Your task to perform on an android device: delete a single message in the gmail app Image 0: 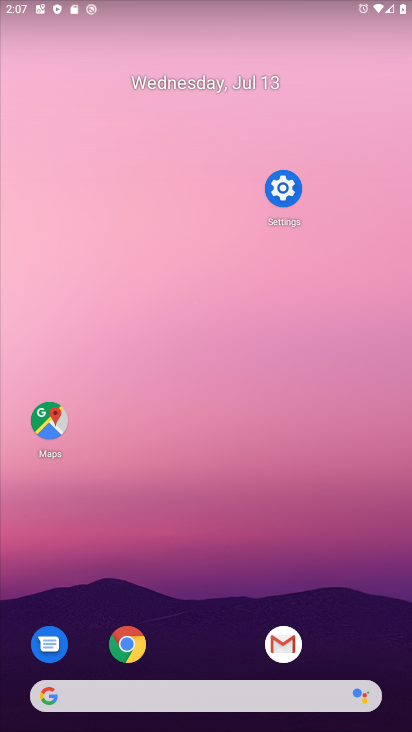
Step 0: press home button
Your task to perform on an android device: delete a single message in the gmail app Image 1: 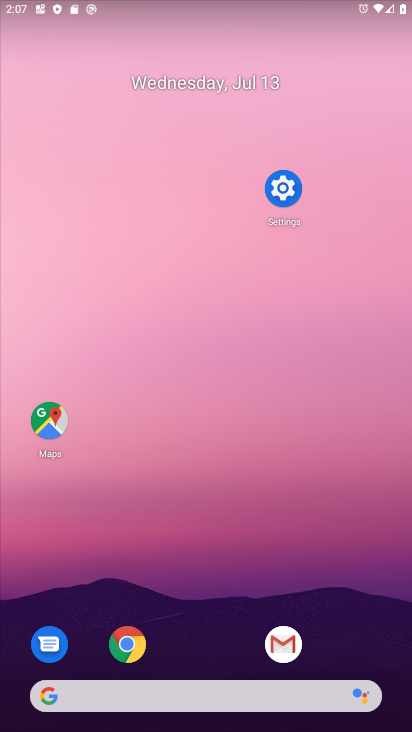
Step 1: click (288, 651)
Your task to perform on an android device: delete a single message in the gmail app Image 2: 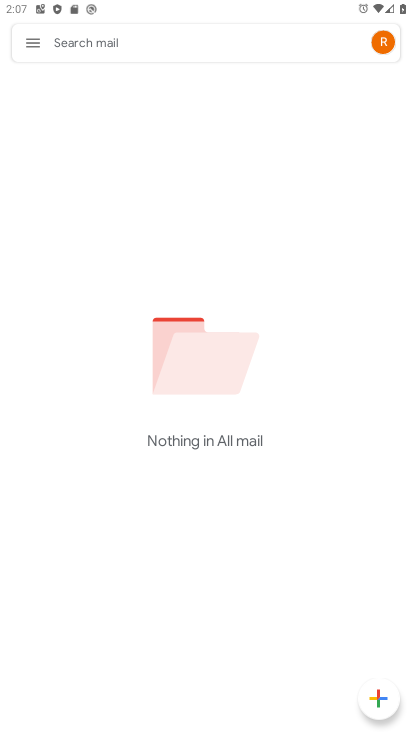
Step 2: click (22, 48)
Your task to perform on an android device: delete a single message in the gmail app Image 3: 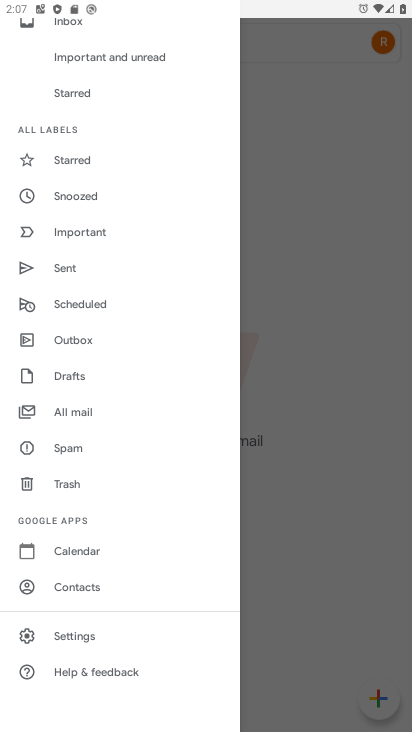
Step 3: click (74, 420)
Your task to perform on an android device: delete a single message in the gmail app Image 4: 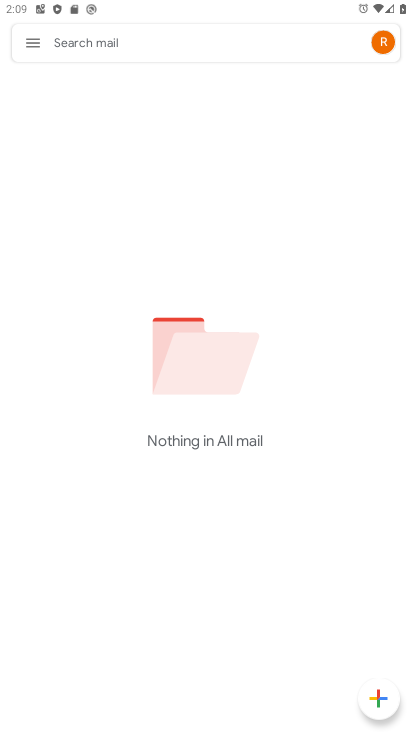
Step 4: task complete